Your task to perform on an android device: Open settings Image 0: 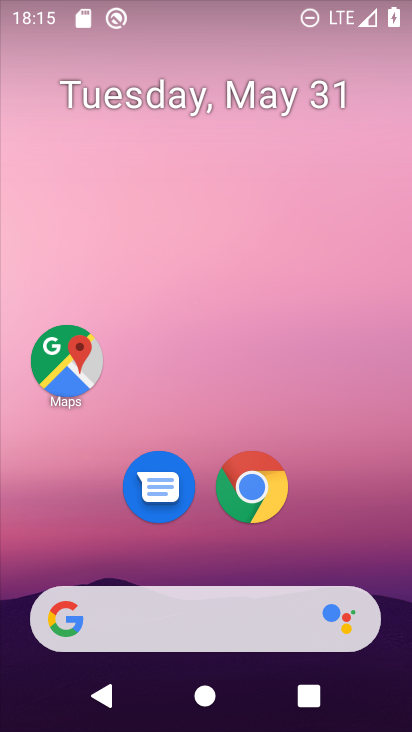
Step 0: drag from (341, 531) to (253, 95)
Your task to perform on an android device: Open settings Image 1: 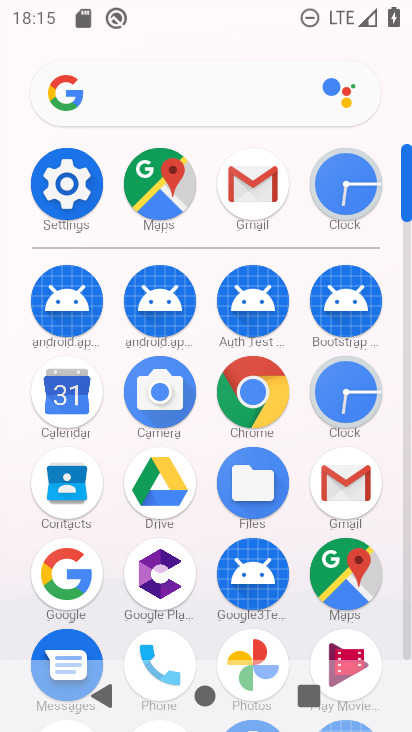
Step 1: click (70, 181)
Your task to perform on an android device: Open settings Image 2: 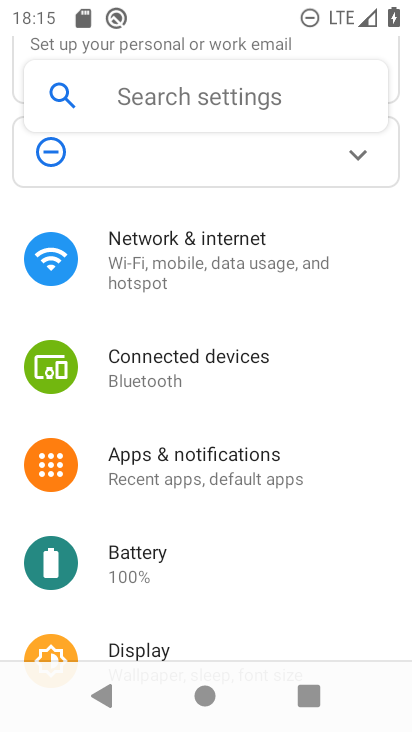
Step 2: task complete